Your task to perform on an android device: turn off sleep mode Image 0: 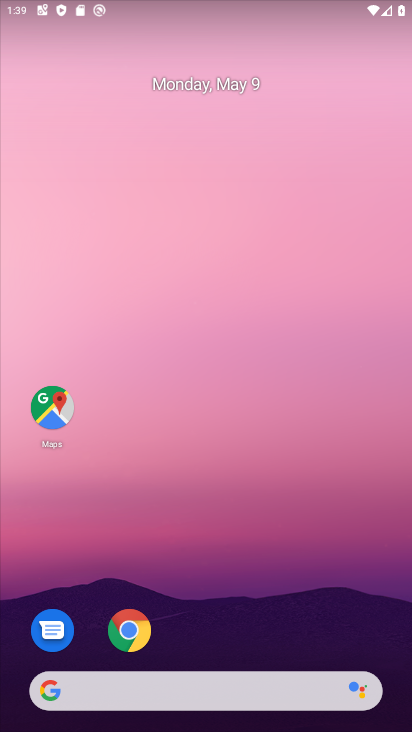
Step 0: drag from (262, 725) to (270, 316)
Your task to perform on an android device: turn off sleep mode Image 1: 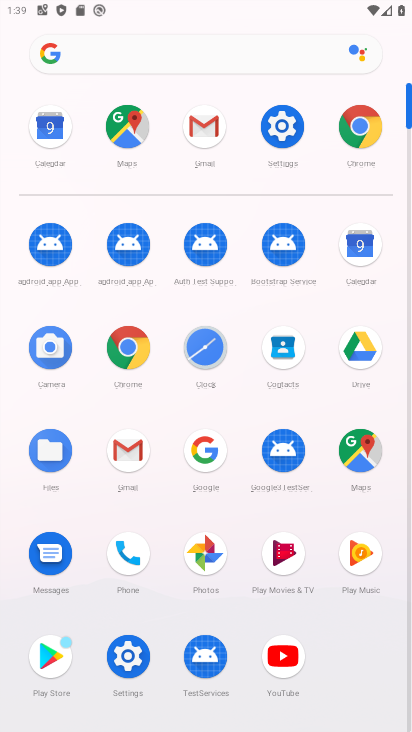
Step 1: click (295, 132)
Your task to perform on an android device: turn off sleep mode Image 2: 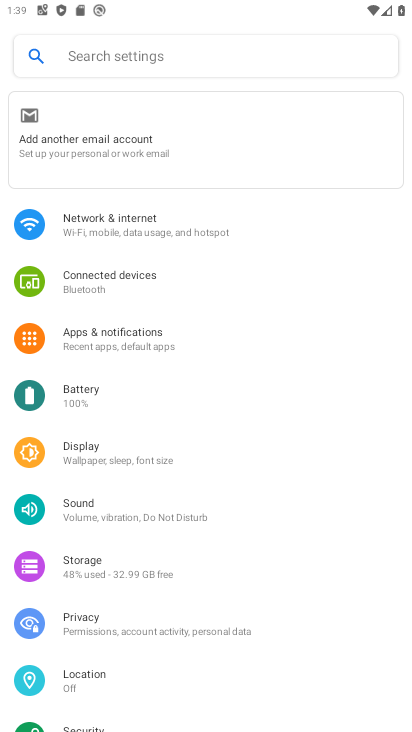
Step 2: click (204, 60)
Your task to perform on an android device: turn off sleep mode Image 3: 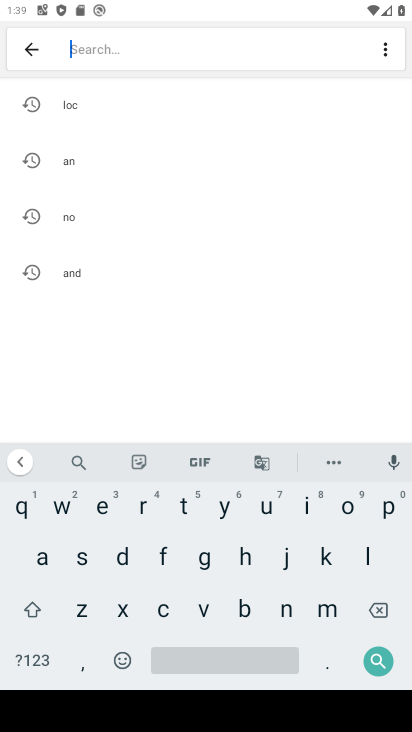
Step 3: click (78, 562)
Your task to perform on an android device: turn off sleep mode Image 4: 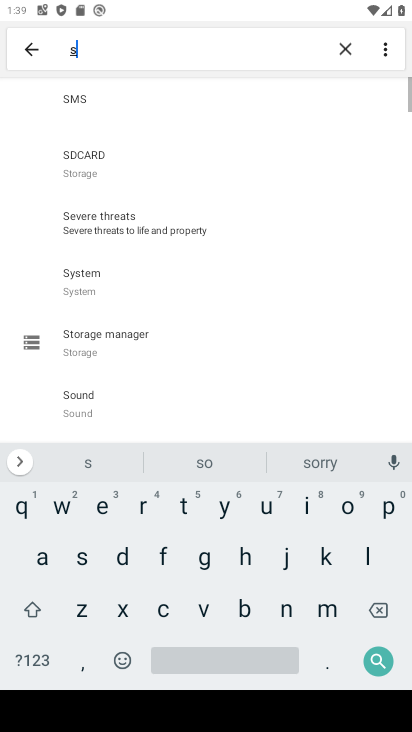
Step 4: click (369, 556)
Your task to perform on an android device: turn off sleep mode Image 5: 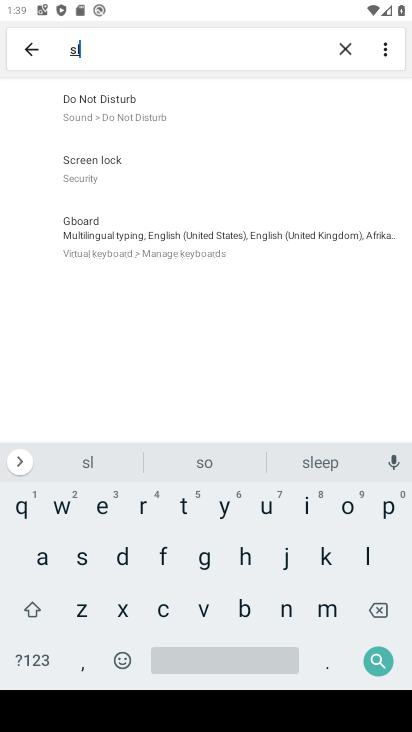
Step 5: click (102, 517)
Your task to perform on an android device: turn off sleep mode Image 6: 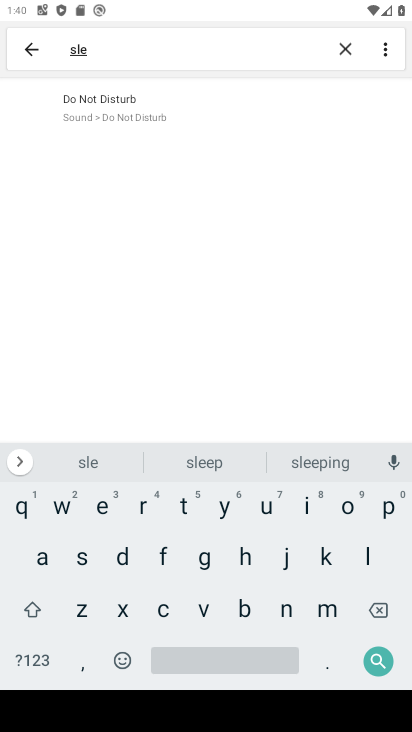
Step 6: click (171, 119)
Your task to perform on an android device: turn off sleep mode Image 7: 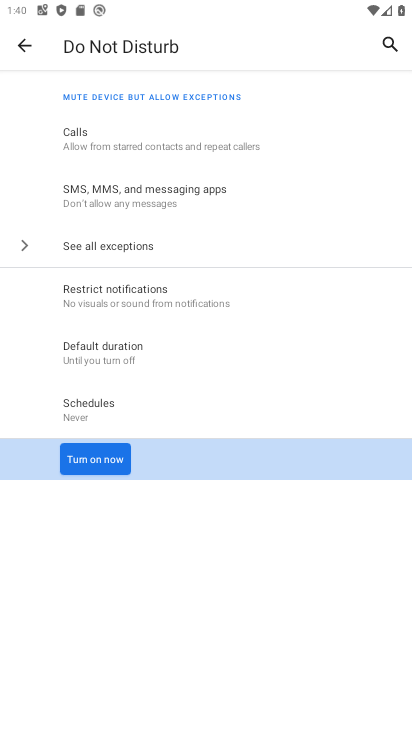
Step 7: click (92, 462)
Your task to perform on an android device: turn off sleep mode Image 8: 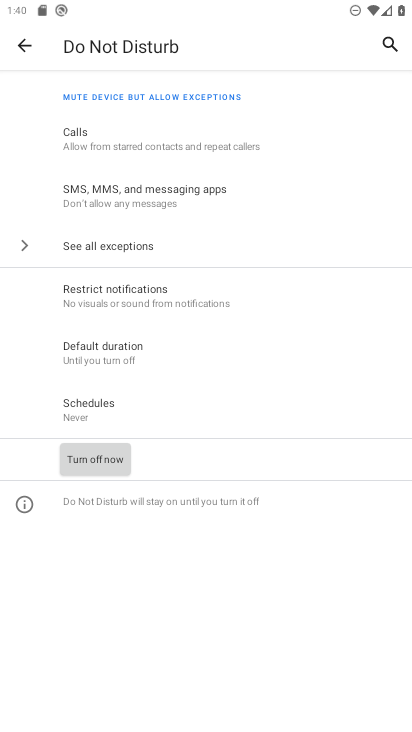
Step 8: task complete